Your task to perform on an android device: Go to internet settings Image 0: 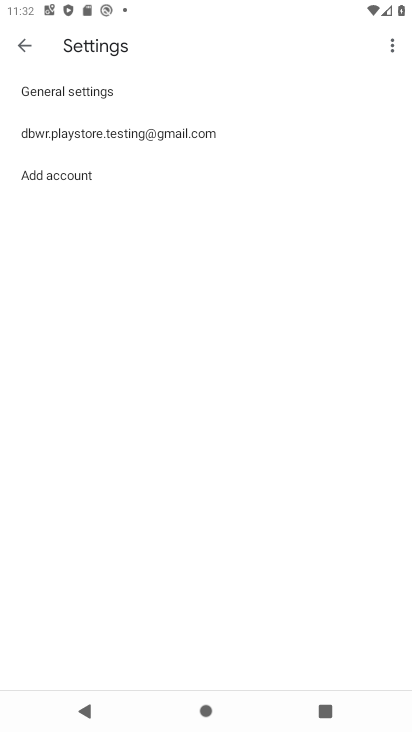
Step 0: press home button
Your task to perform on an android device: Go to internet settings Image 1: 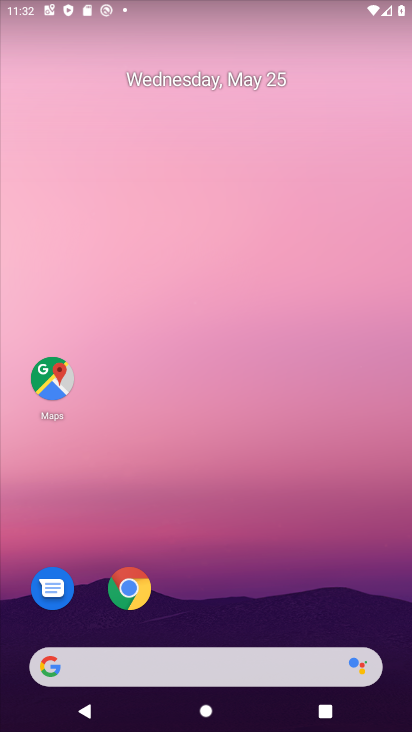
Step 1: drag from (251, 494) to (268, 58)
Your task to perform on an android device: Go to internet settings Image 2: 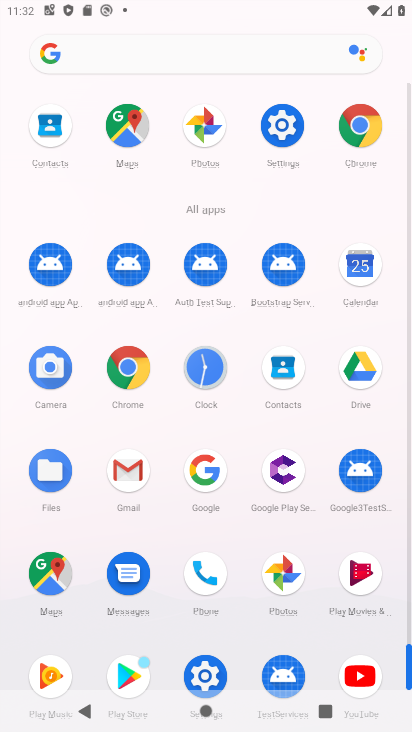
Step 2: drag from (23, 602) to (27, 294)
Your task to perform on an android device: Go to internet settings Image 3: 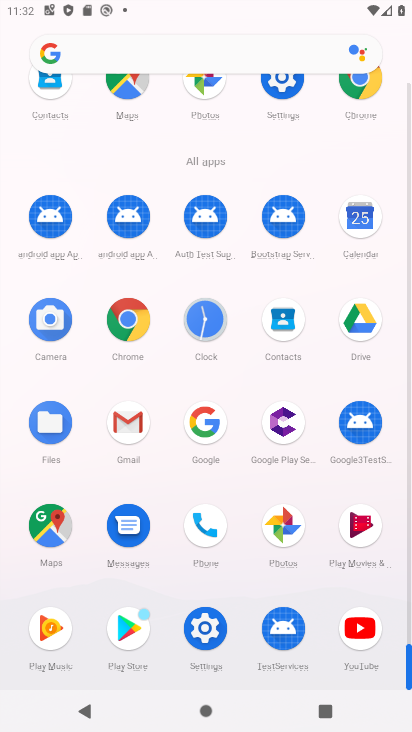
Step 3: click (198, 623)
Your task to perform on an android device: Go to internet settings Image 4: 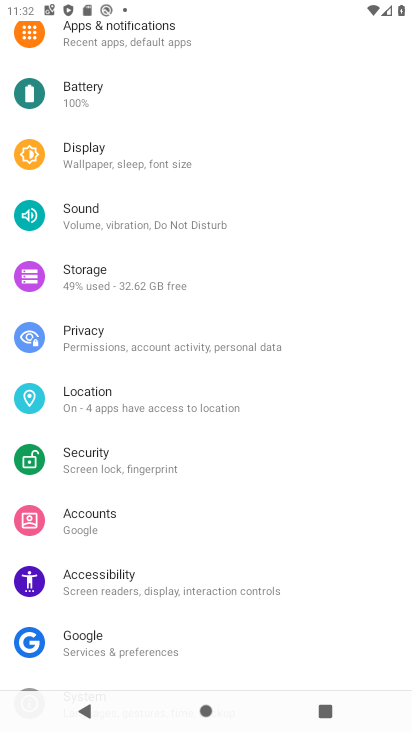
Step 4: drag from (282, 139) to (282, 536)
Your task to perform on an android device: Go to internet settings Image 5: 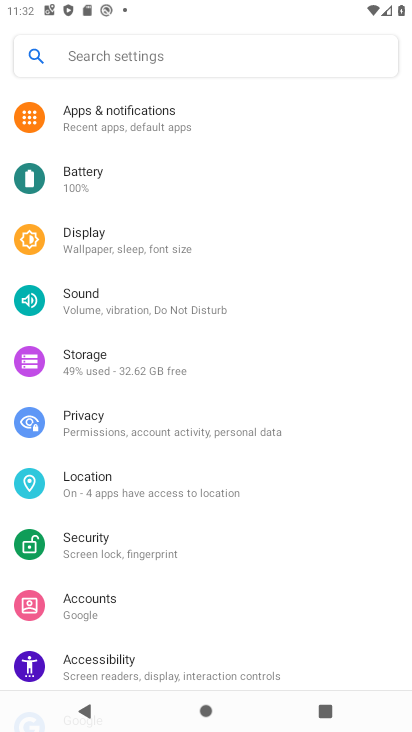
Step 5: drag from (219, 132) to (236, 610)
Your task to perform on an android device: Go to internet settings Image 6: 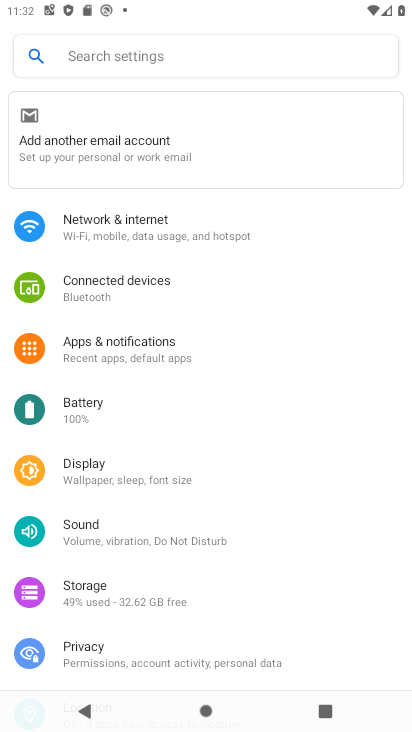
Step 6: click (171, 221)
Your task to perform on an android device: Go to internet settings Image 7: 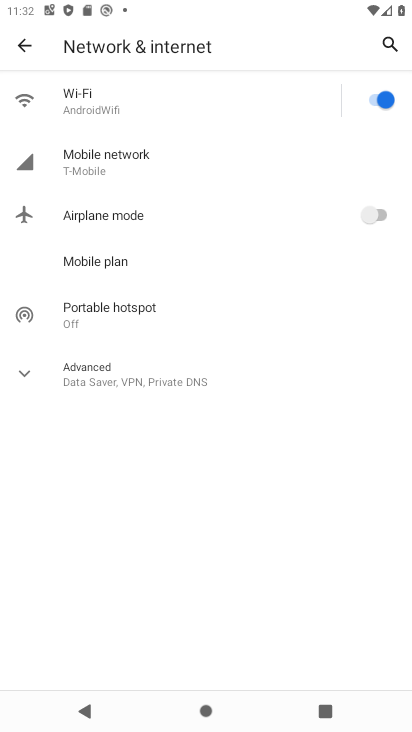
Step 7: click (64, 384)
Your task to perform on an android device: Go to internet settings Image 8: 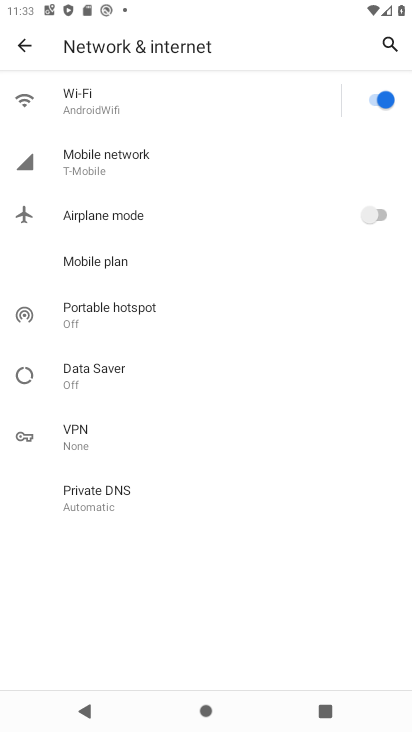
Step 8: task complete